Your task to perform on an android device: What's the weather? Image 0: 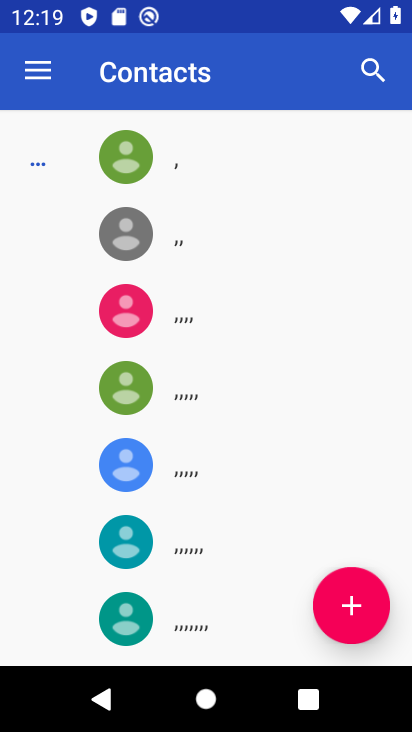
Step 0: press home button
Your task to perform on an android device: What's the weather? Image 1: 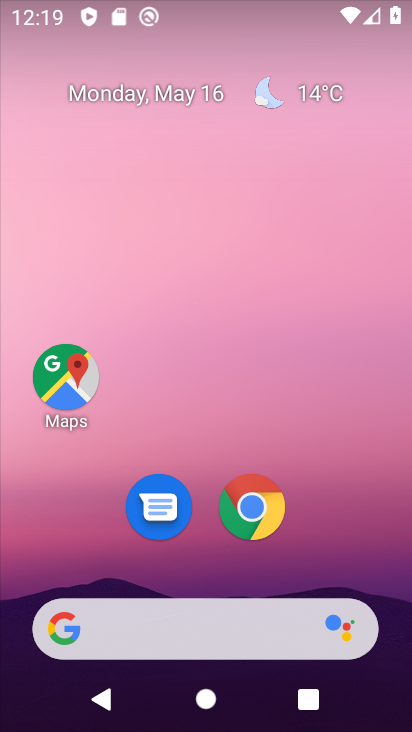
Step 1: drag from (194, 574) to (235, 155)
Your task to perform on an android device: What's the weather? Image 2: 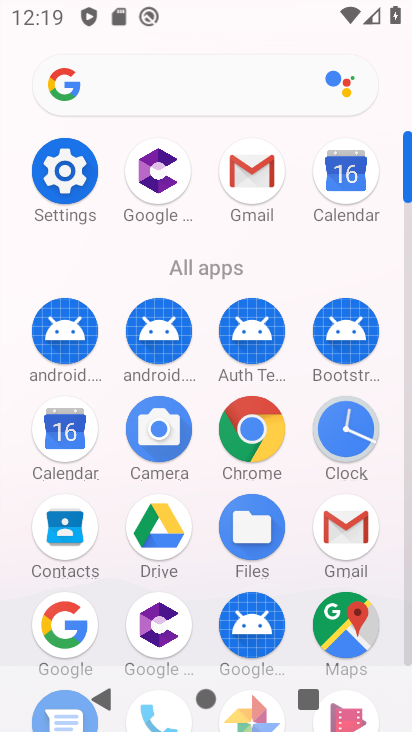
Step 2: drag from (210, 281) to (222, 43)
Your task to perform on an android device: What's the weather? Image 3: 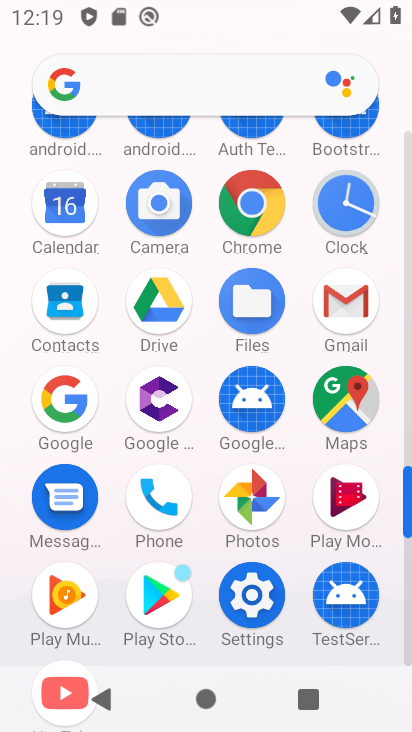
Step 3: click (85, 417)
Your task to perform on an android device: What's the weather? Image 4: 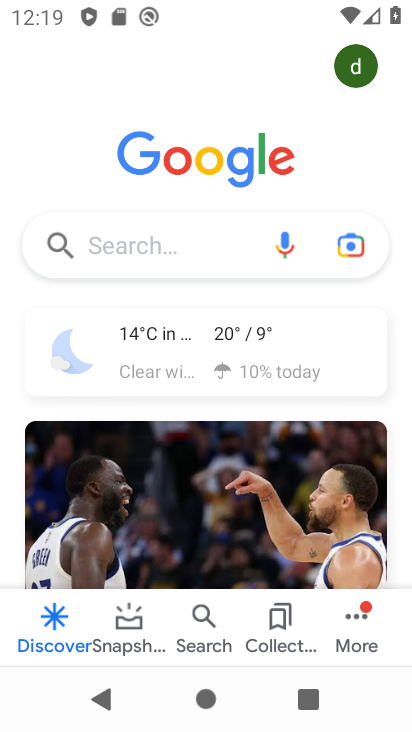
Step 4: click (148, 353)
Your task to perform on an android device: What's the weather? Image 5: 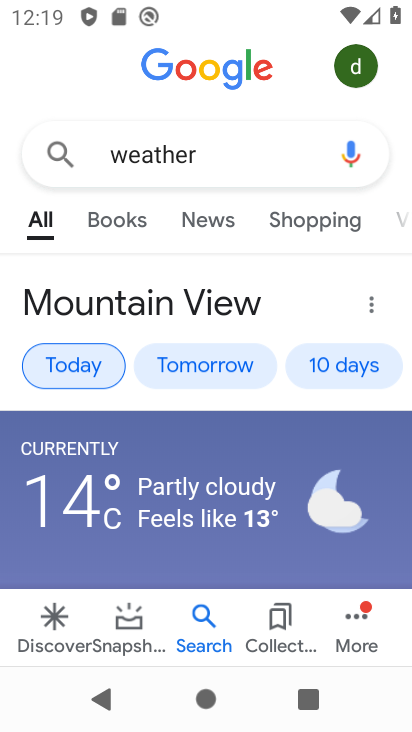
Step 5: task complete